Your task to perform on an android device: Open Google Chrome and click the shortcut for Amazon.com Image 0: 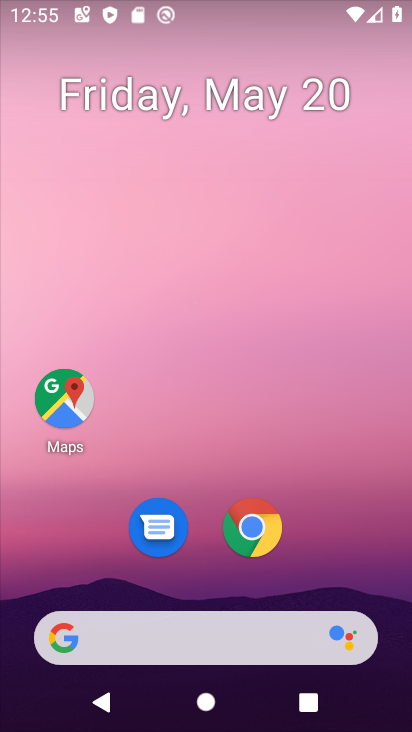
Step 0: click (252, 530)
Your task to perform on an android device: Open Google Chrome and click the shortcut for Amazon.com Image 1: 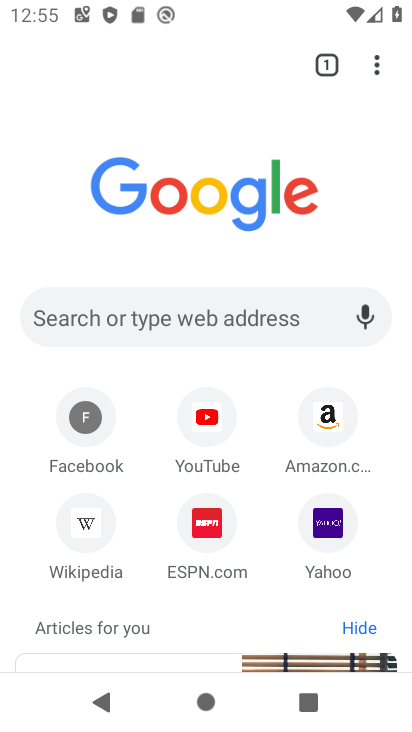
Step 1: click (329, 419)
Your task to perform on an android device: Open Google Chrome and click the shortcut for Amazon.com Image 2: 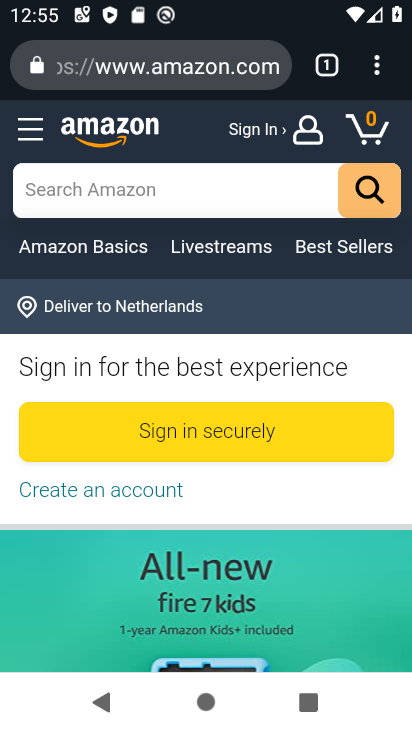
Step 2: task complete